Your task to perform on an android device: Look up the best rated coffee table on Ikea Image 0: 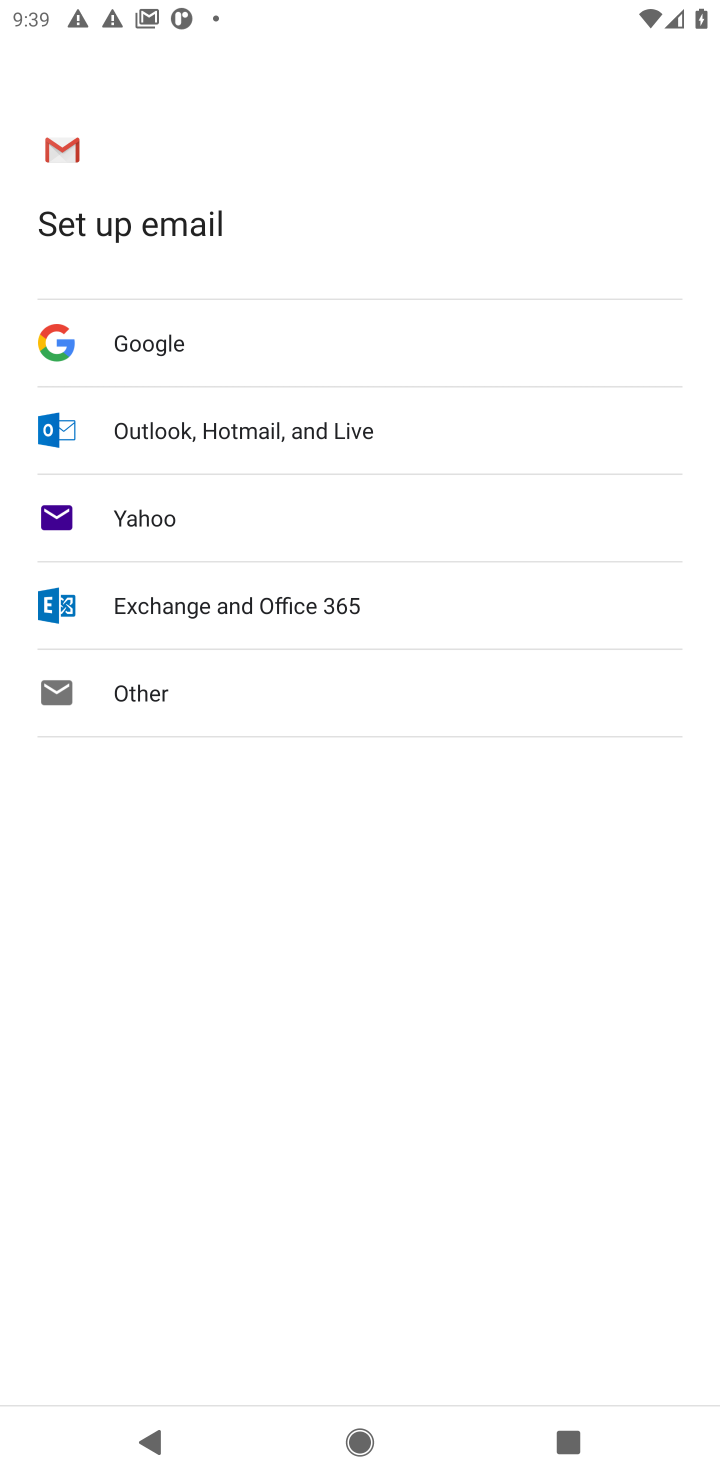
Step 0: press home button
Your task to perform on an android device: Look up the best rated coffee table on Ikea Image 1: 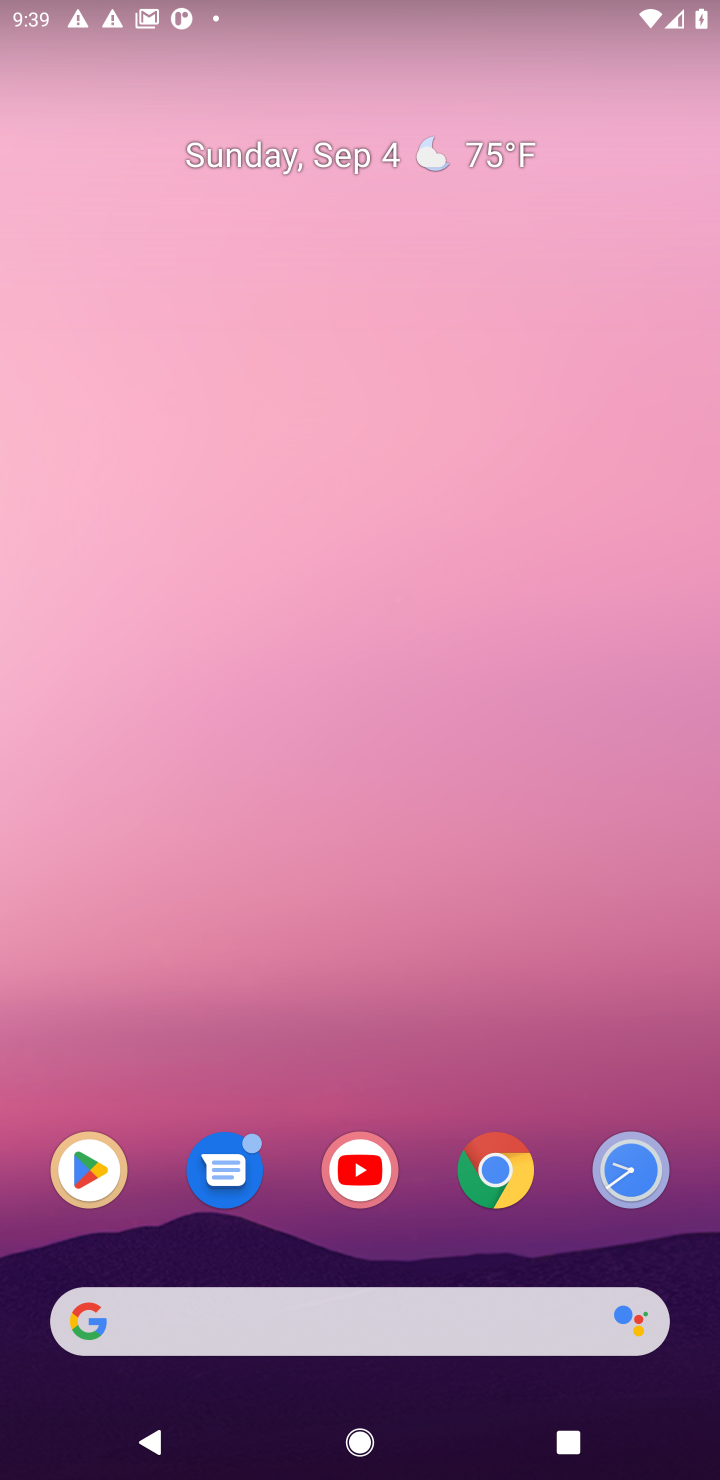
Step 1: click (501, 1197)
Your task to perform on an android device: Look up the best rated coffee table on Ikea Image 2: 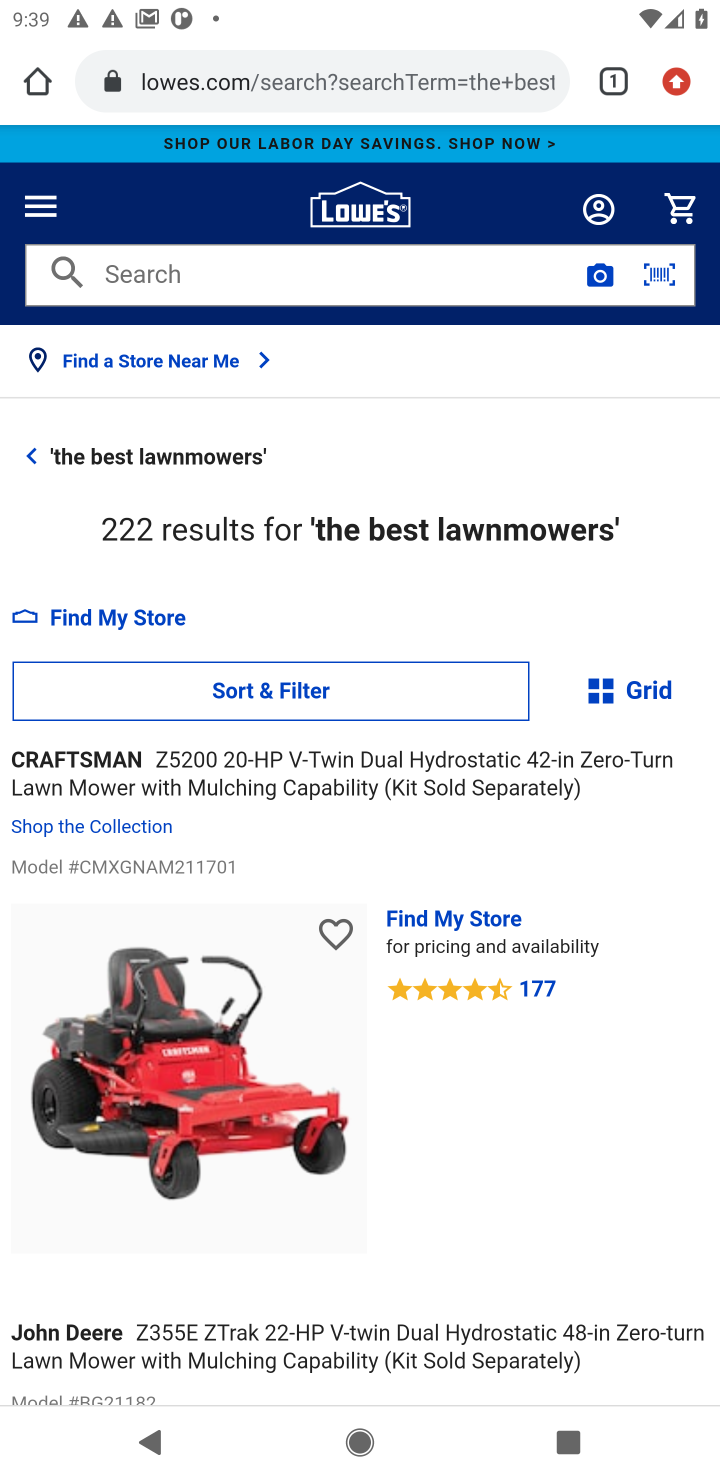
Step 2: click (419, 73)
Your task to perform on an android device: Look up the best rated coffee table on Ikea Image 3: 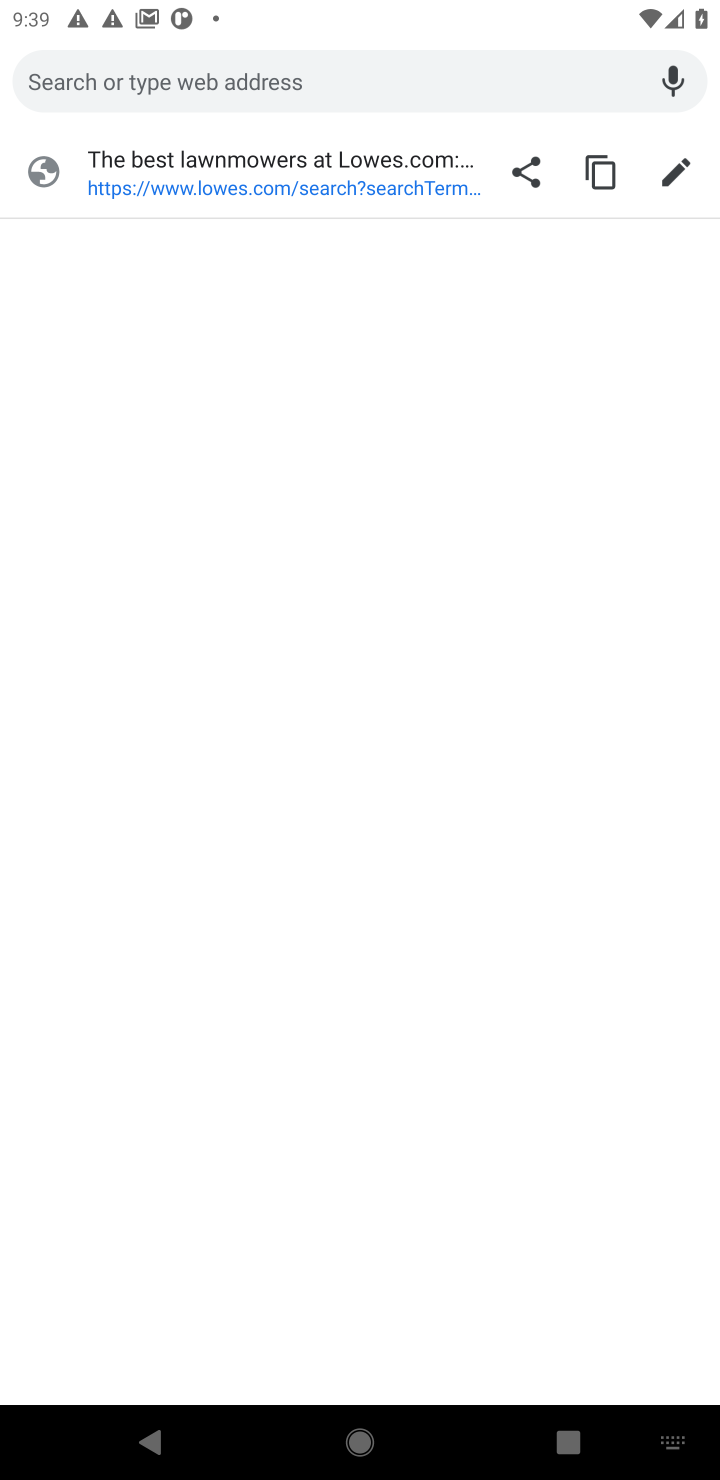
Step 3: type "Ikea"
Your task to perform on an android device: Look up the best rated coffee table on Ikea Image 4: 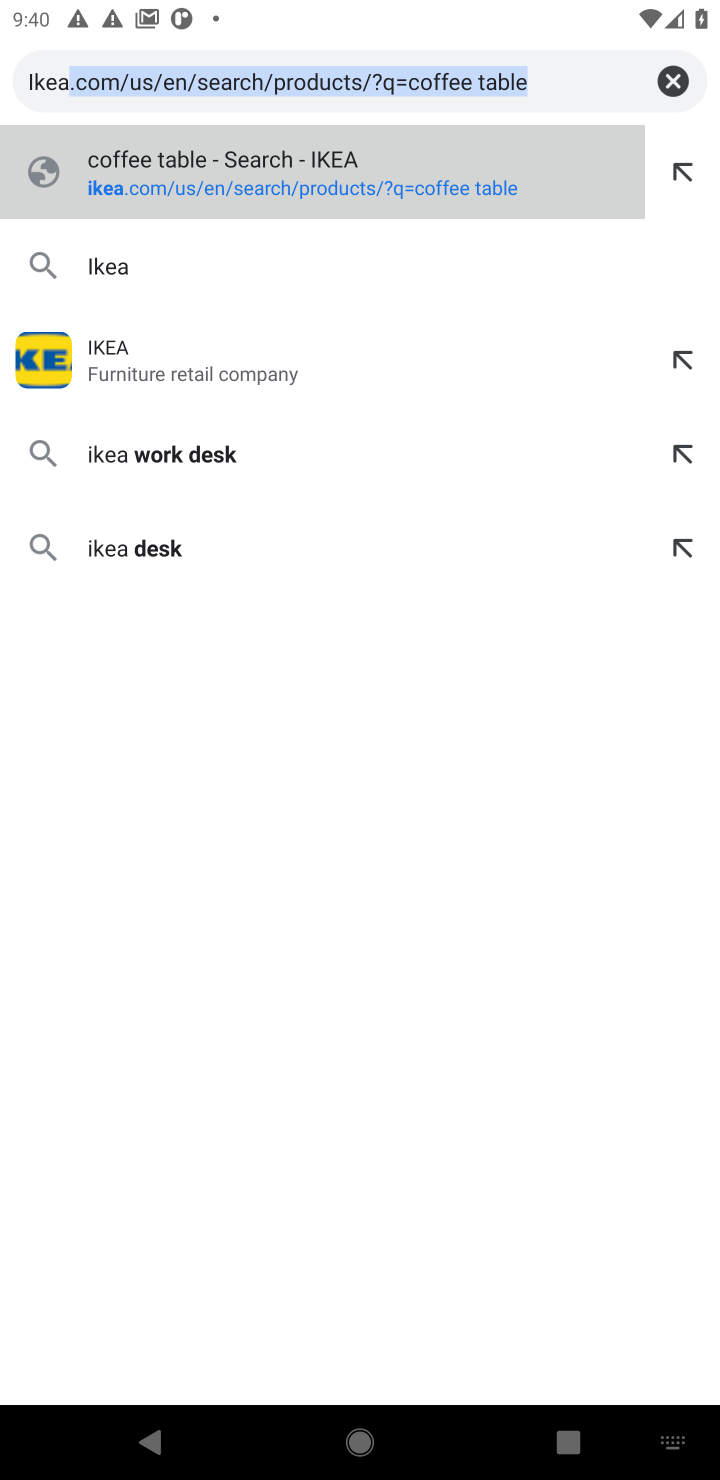
Step 4: click (307, 276)
Your task to perform on an android device: Look up the best rated coffee table on Ikea Image 5: 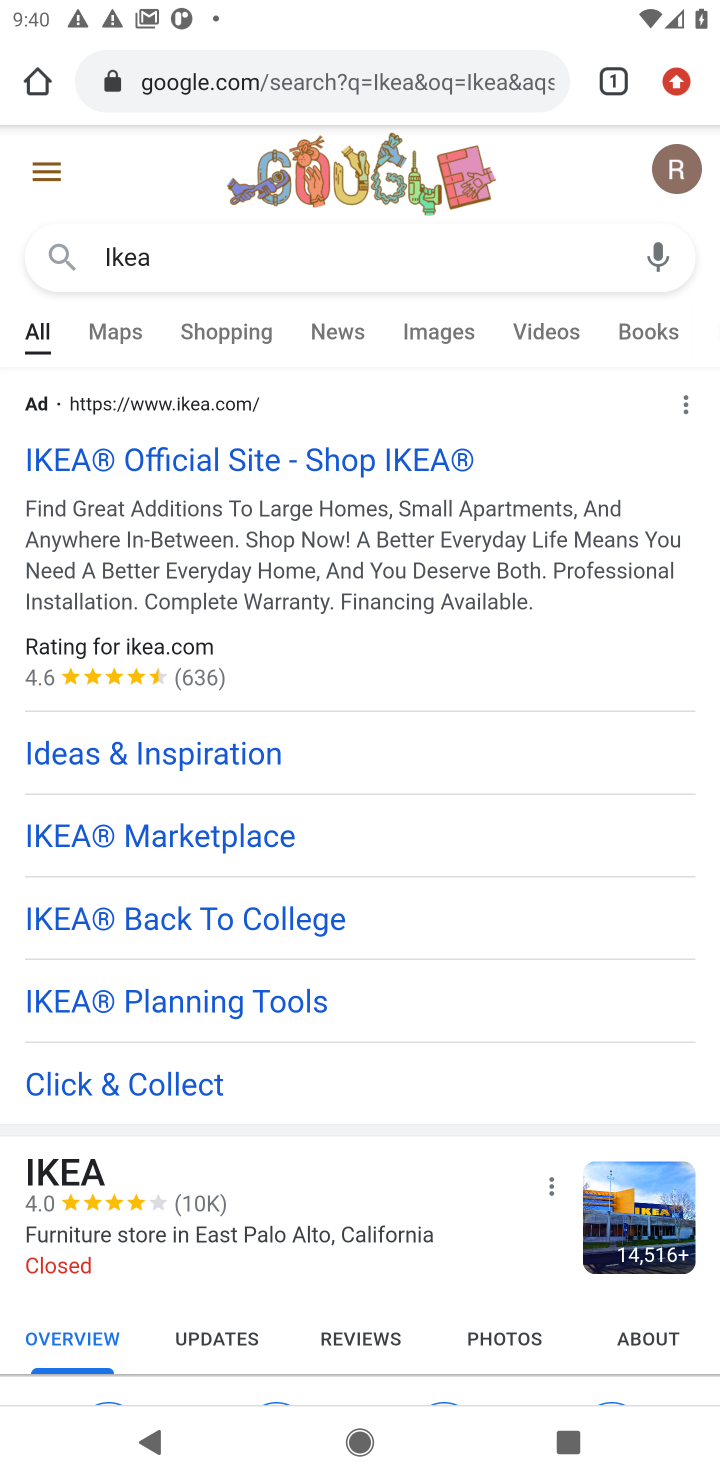
Step 5: click (140, 466)
Your task to perform on an android device: Look up the best rated coffee table on Ikea Image 6: 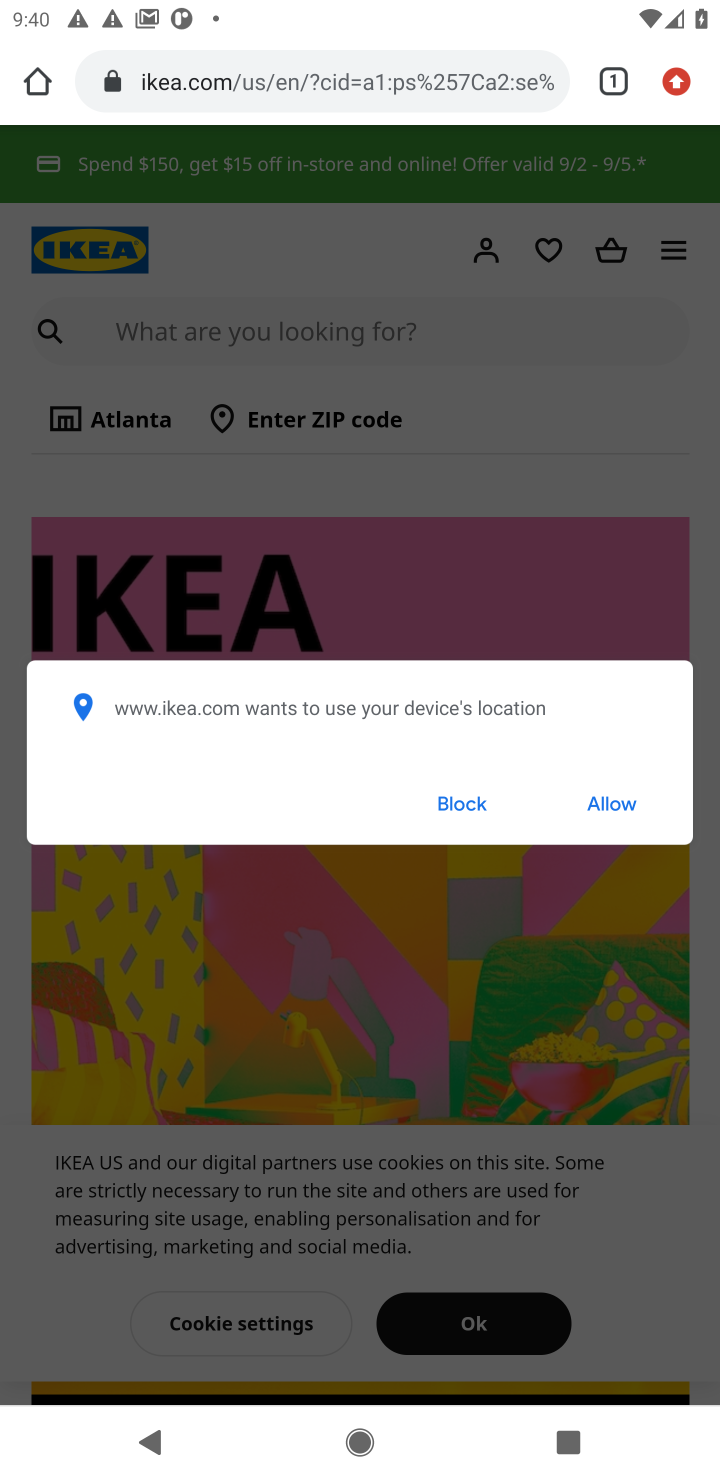
Step 6: click (438, 1304)
Your task to perform on an android device: Look up the best rated coffee table on Ikea Image 7: 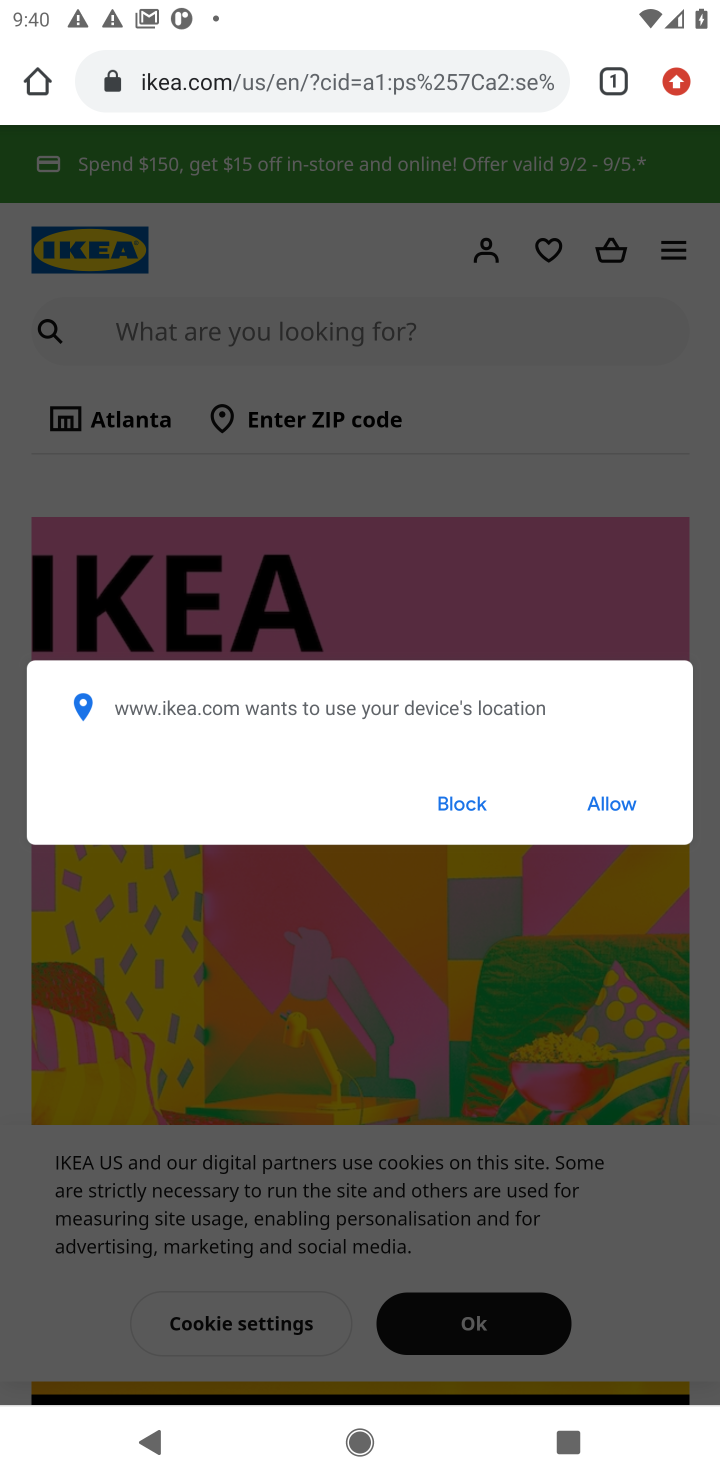
Step 7: click (466, 802)
Your task to perform on an android device: Look up the best rated coffee table on Ikea Image 8: 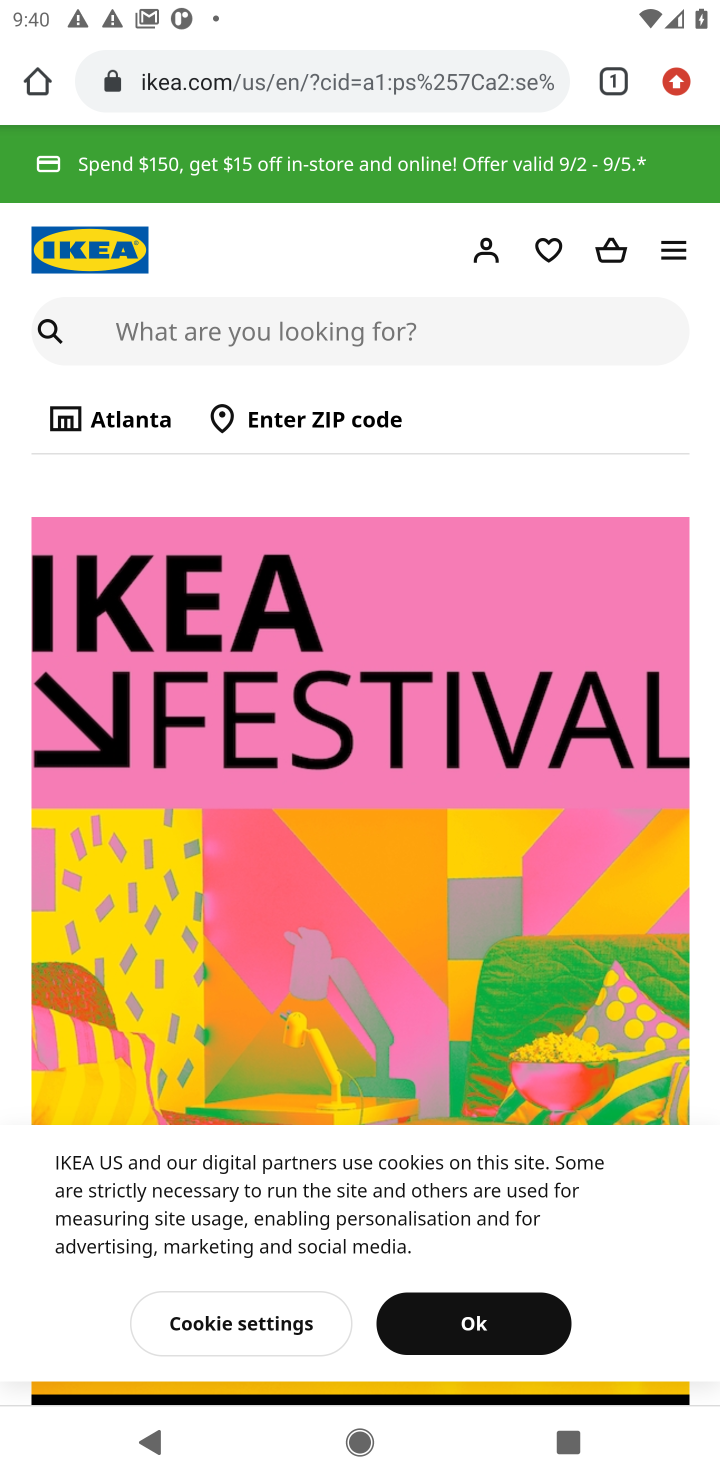
Step 8: click (463, 313)
Your task to perform on an android device: Look up the best rated coffee table on Ikea Image 9: 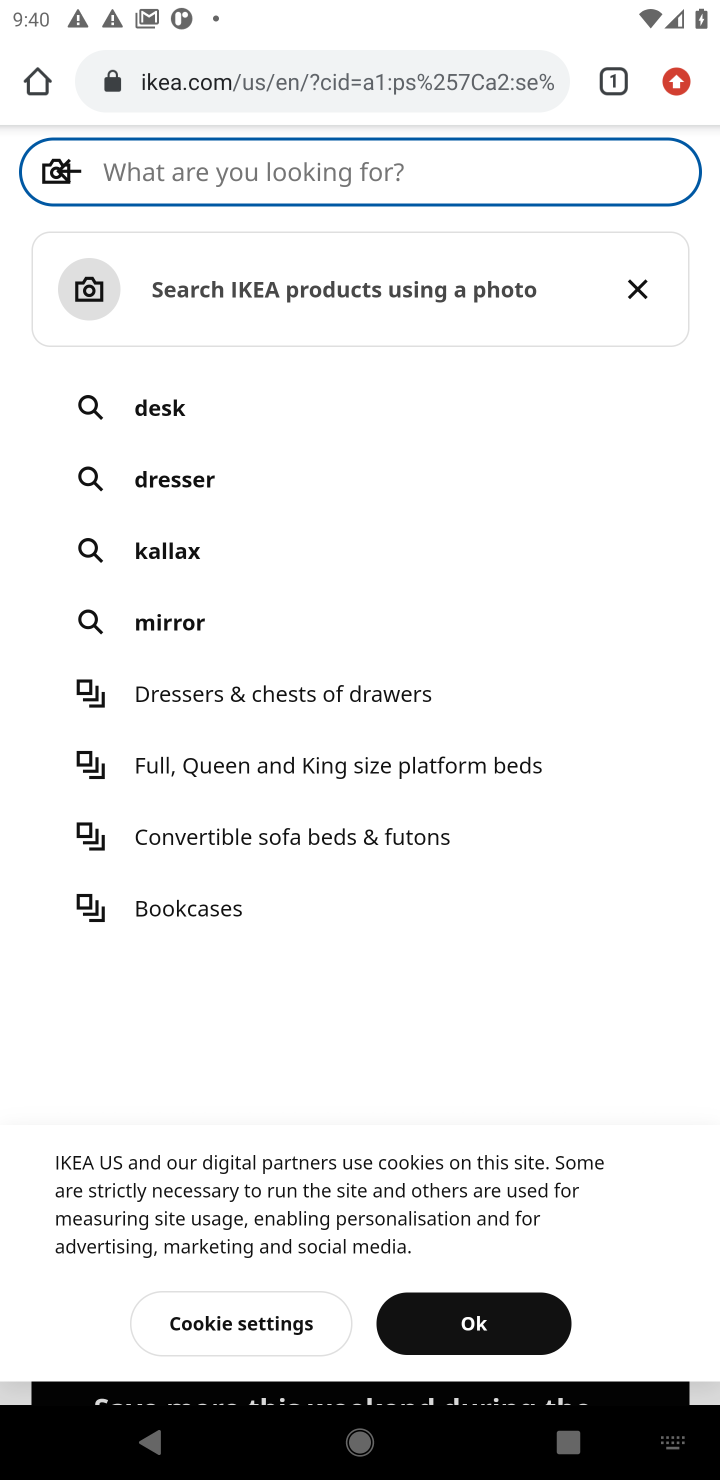
Step 9: type "the best rated coffee table"
Your task to perform on an android device: Look up the best rated coffee table on Ikea Image 10: 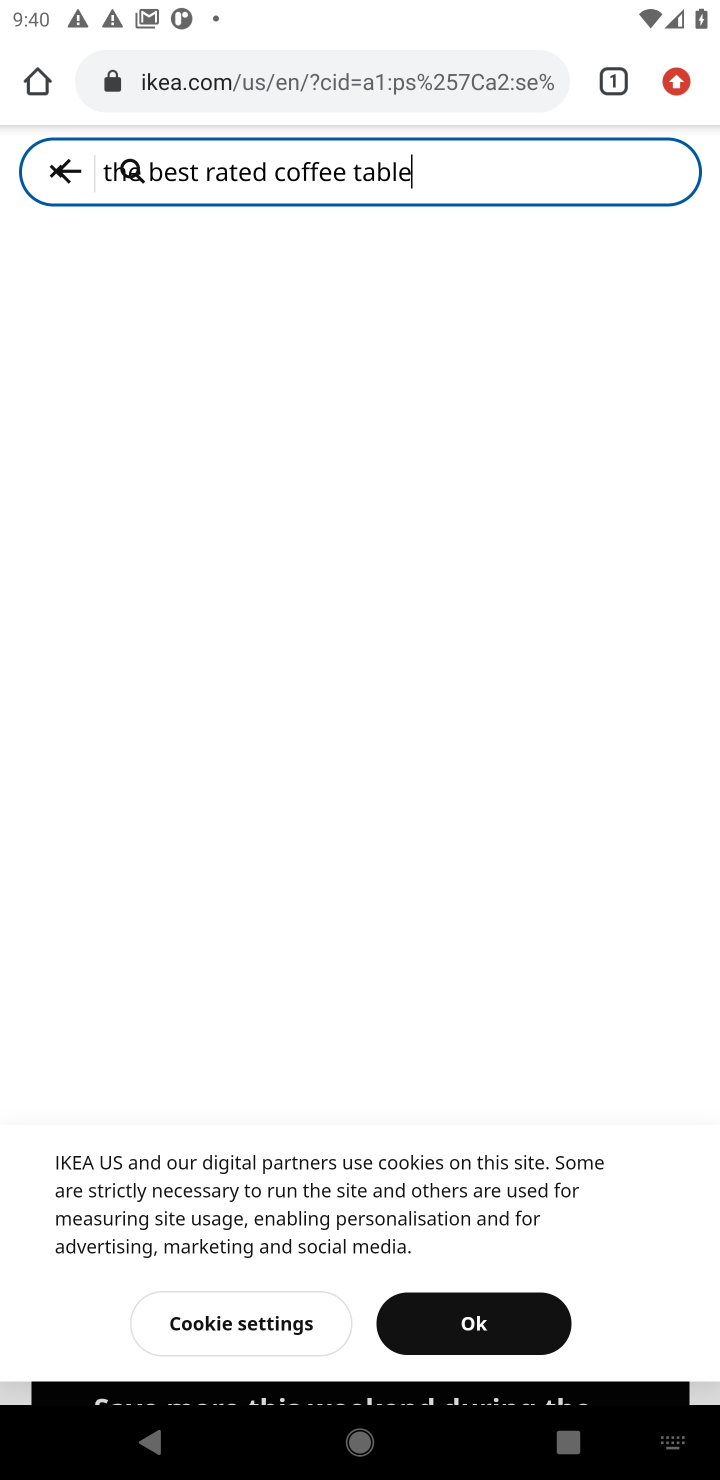
Step 10: click (132, 167)
Your task to perform on an android device: Look up the best rated coffee table on Ikea Image 11: 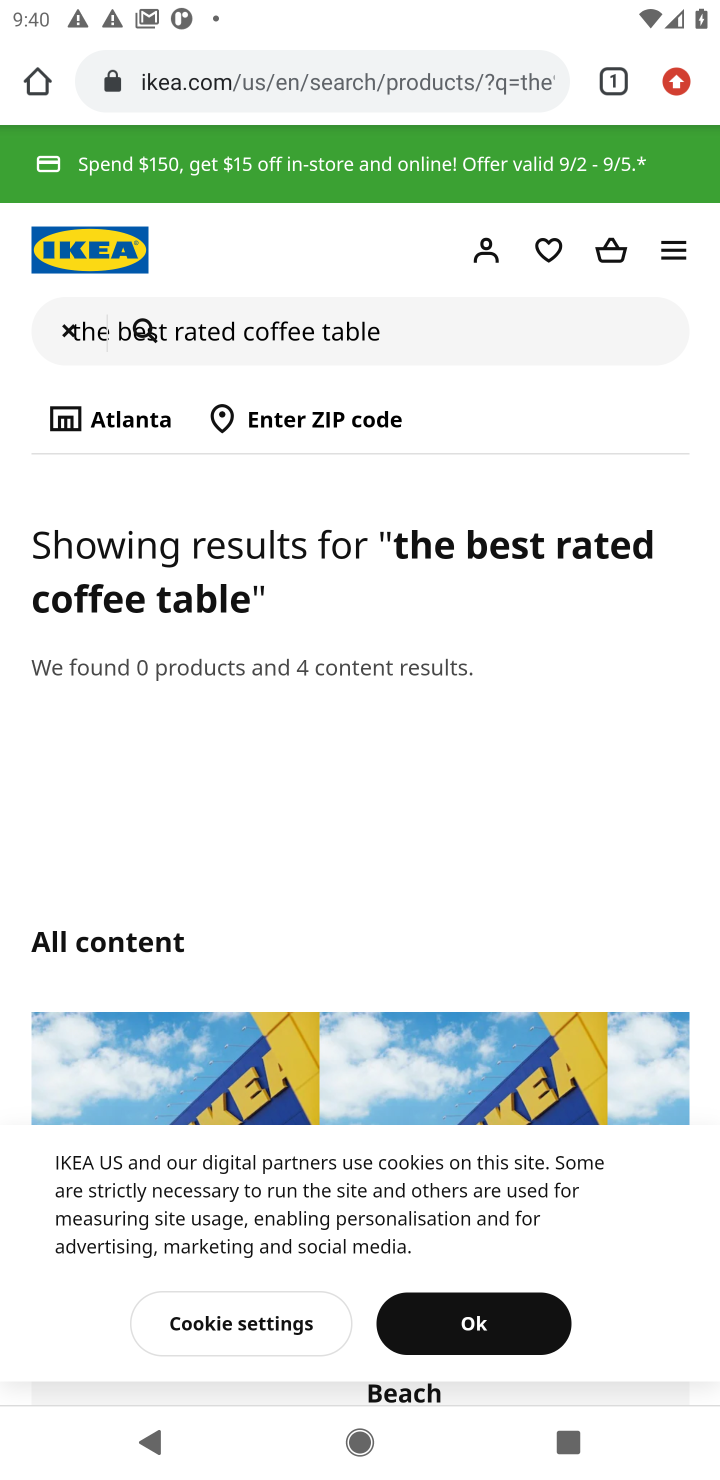
Step 11: task complete